Your task to perform on an android device: change the clock display to digital Image 0: 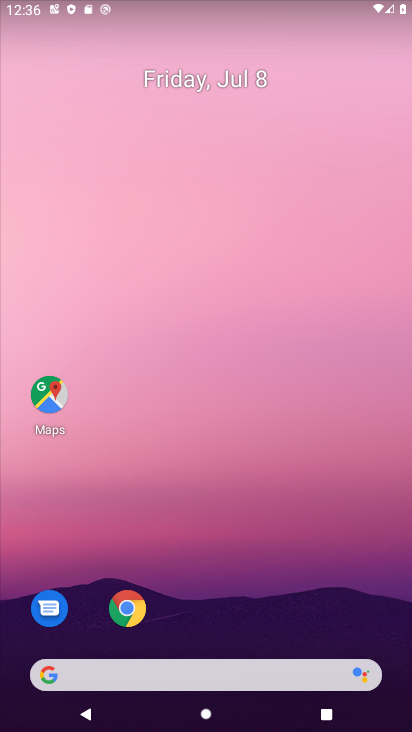
Step 0: drag from (250, 627) to (288, 161)
Your task to perform on an android device: change the clock display to digital Image 1: 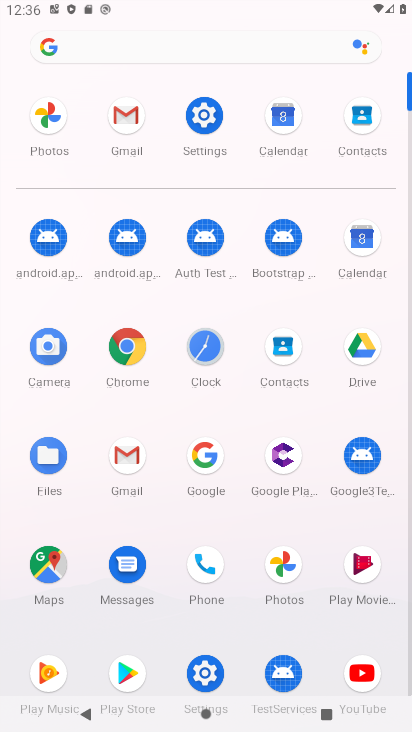
Step 1: click (211, 143)
Your task to perform on an android device: change the clock display to digital Image 2: 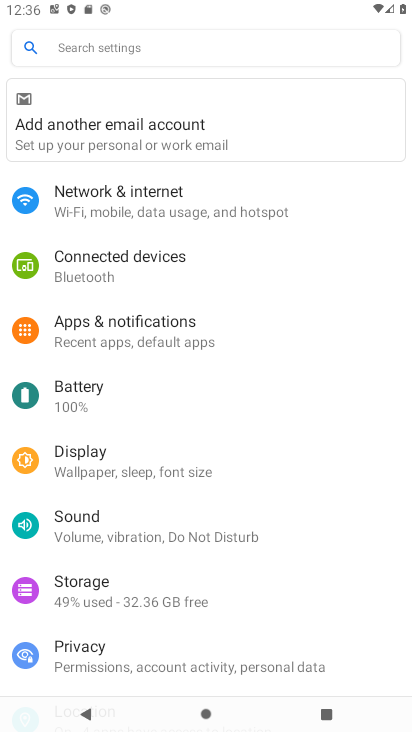
Step 2: click (192, 460)
Your task to perform on an android device: change the clock display to digital Image 3: 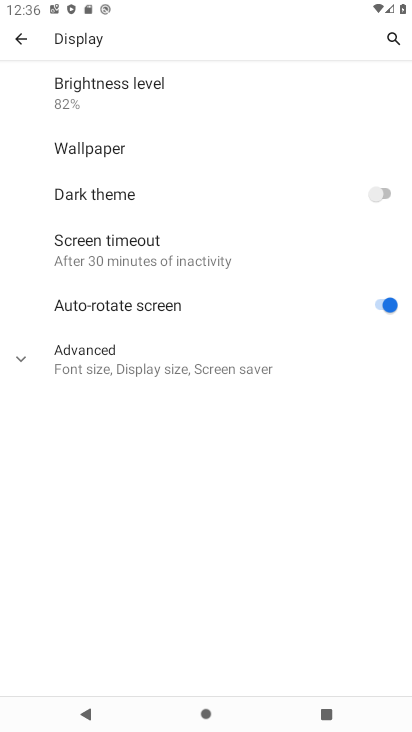
Step 3: task complete